Your task to perform on an android device: star an email in the gmail app Image 0: 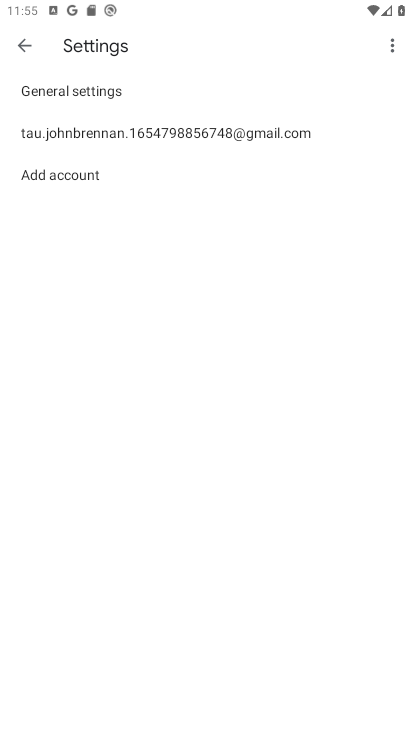
Step 0: press home button
Your task to perform on an android device: star an email in the gmail app Image 1: 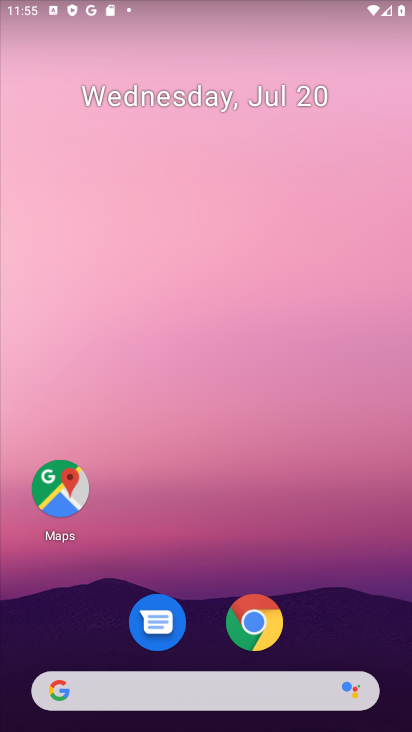
Step 1: drag from (276, 706) to (255, 250)
Your task to perform on an android device: star an email in the gmail app Image 2: 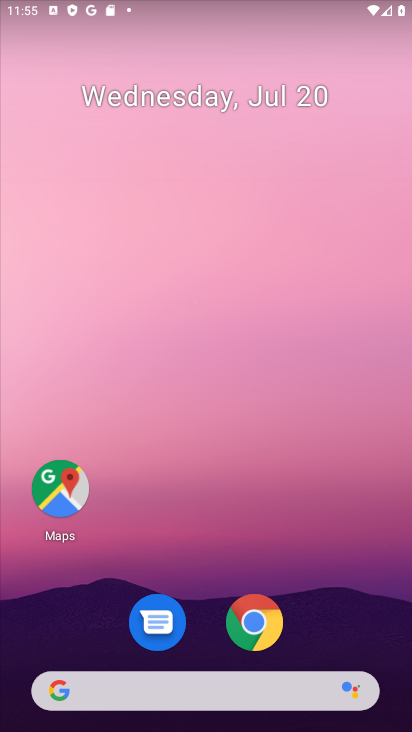
Step 2: drag from (234, 707) to (305, 54)
Your task to perform on an android device: star an email in the gmail app Image 3: 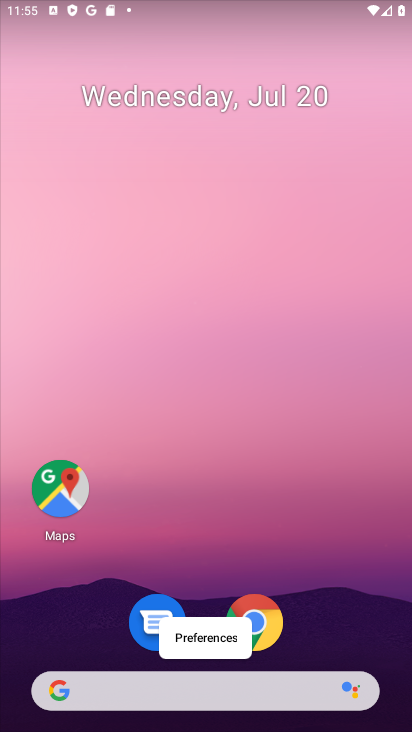
Step 3: drag from (121, 723) to (363, 62)
Your task to perform on an android device: star an email in the gmail app Image 4: 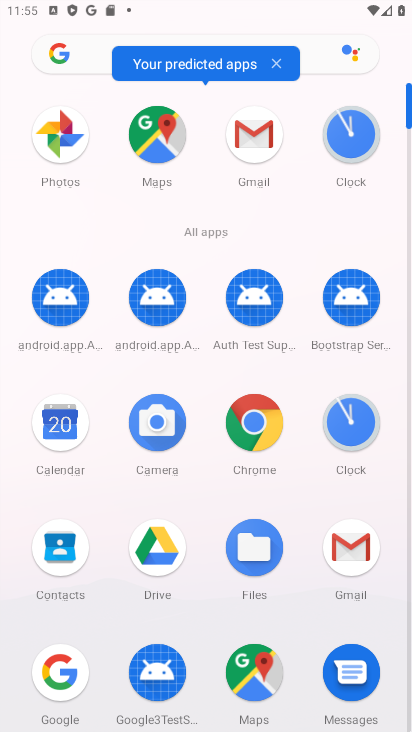
Step 4: click (343, 548)
Your task to perform on an android device: star an email in the gmail app Image 5: 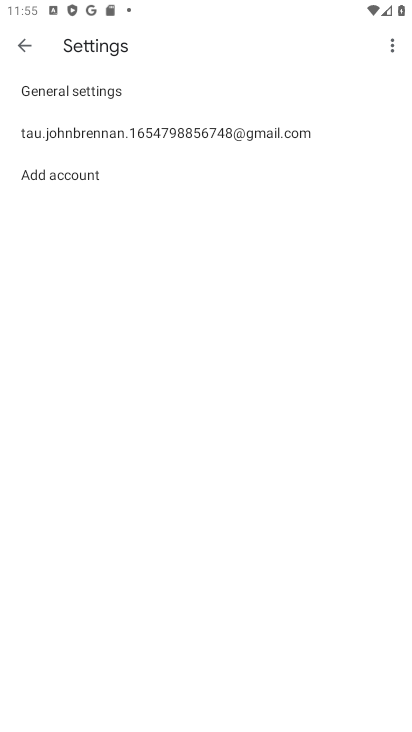
Step 5: click (19, 44)
Your task to perform on an android device: star an email in the gmail app Image 6: 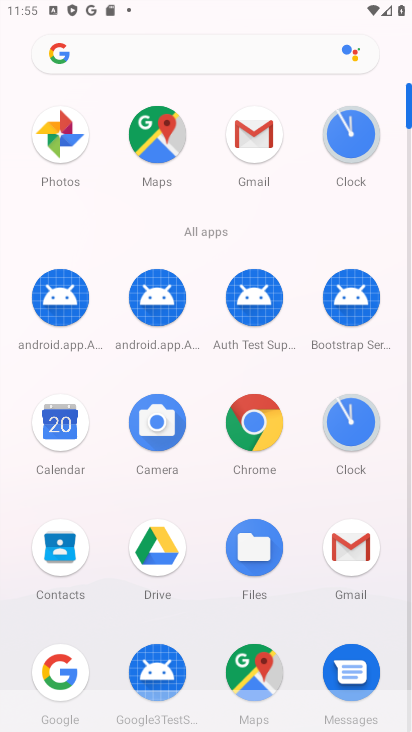
Step 6: click (255, 145)
Your task to perform on an android device: star an email in the gmail app Image 7: 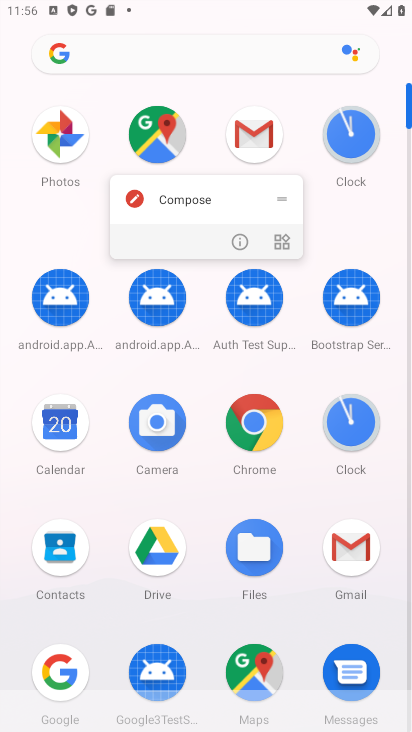
Step 7: click (255, 143)
Your task to perform on an android device: star an email in the gmail app Image 8: 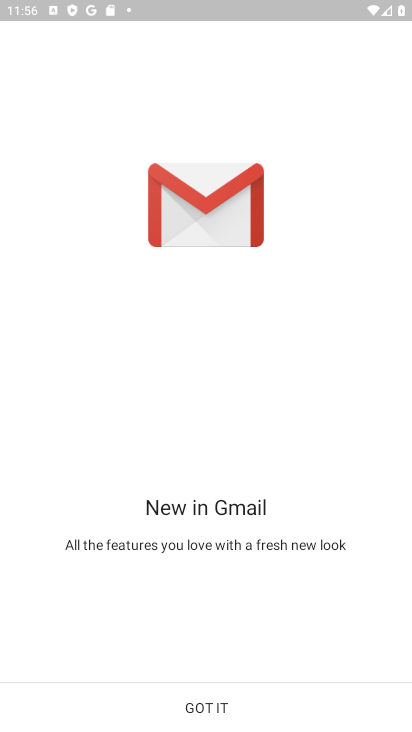
Step 8: click (191, 703)
Your task to perform on an android device: star an email in the gmail app Image 9: 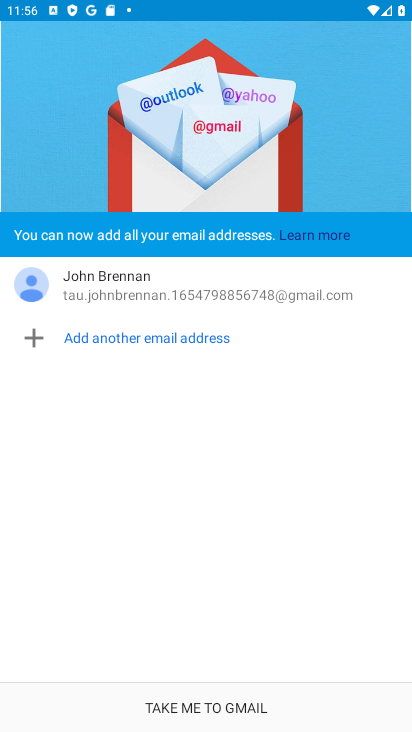
Step 9: click (191, 702)
Your task to perform on an android device: star an email in the gmail app Image 10: 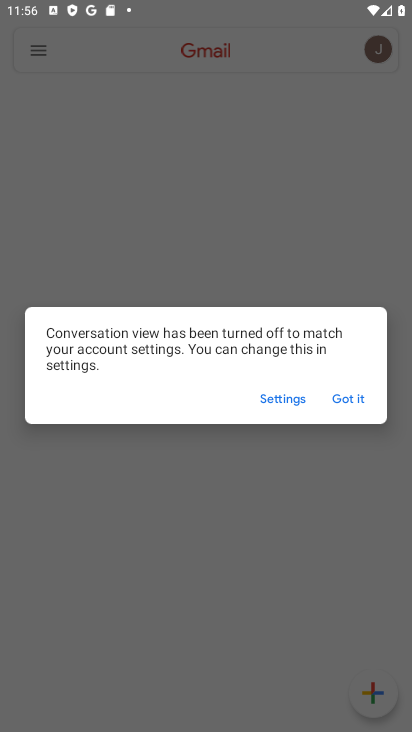
Step 10: click (354, 396)
Your task to perform on an android device: star an email in the gmail app Image 11: 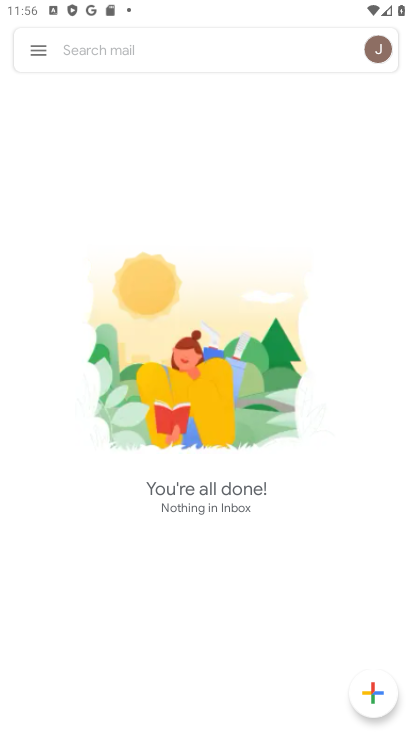
Step 11: click (42, 50)
Your task to perform on an android device: star an email in the gmail app Image 12: 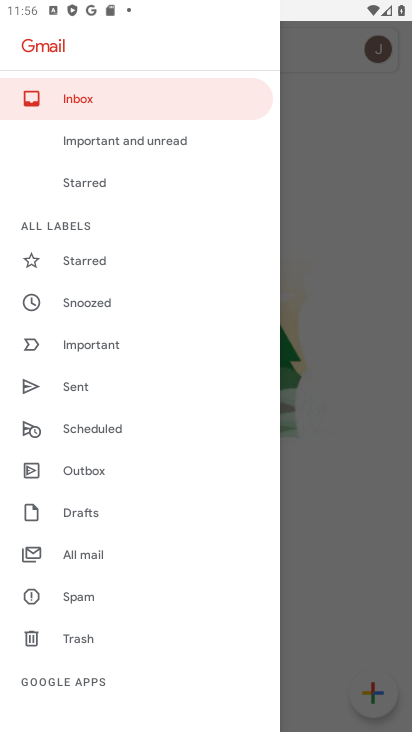
Step 12: click (89, 184)
Your task to perform on an android device: star an email in the gmail app Image 13: 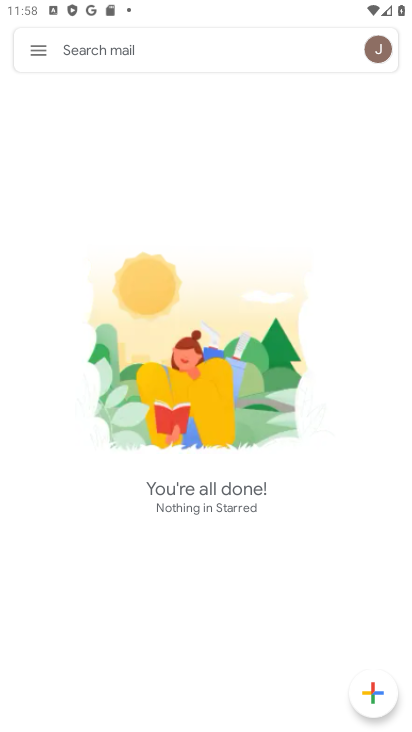
Step 13: task complete